Your task to perform on an android device: Look up the best rated bike on Walmart Image 0: 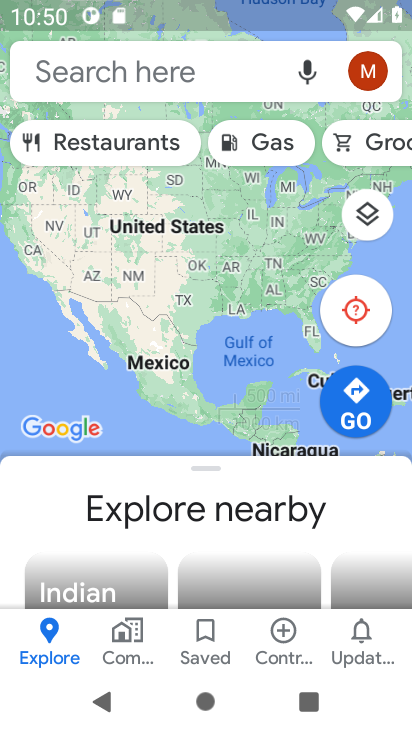
Step 0: press home button
Your task to perform on an android device: Look up the best rated bike on Walmart Image 1: 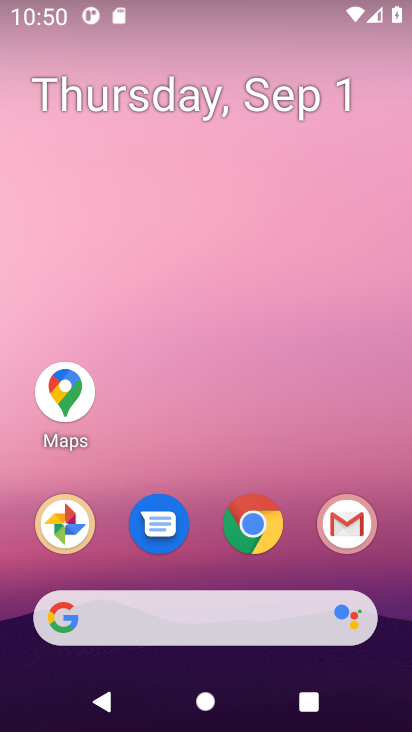
Step 1: click (246, 622)
Your task to perform on an android device: Look up the best rated bike on Walmart Image 2: 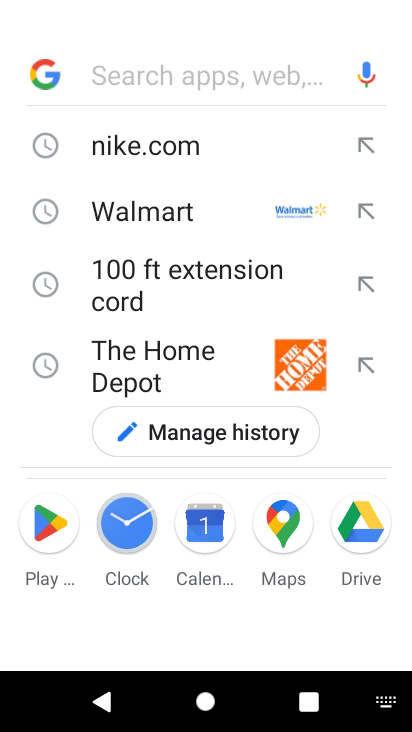
Step 2: type "walmart"
Your task to perform on an android device: Look up the best rated bike on Walmart Image 3: 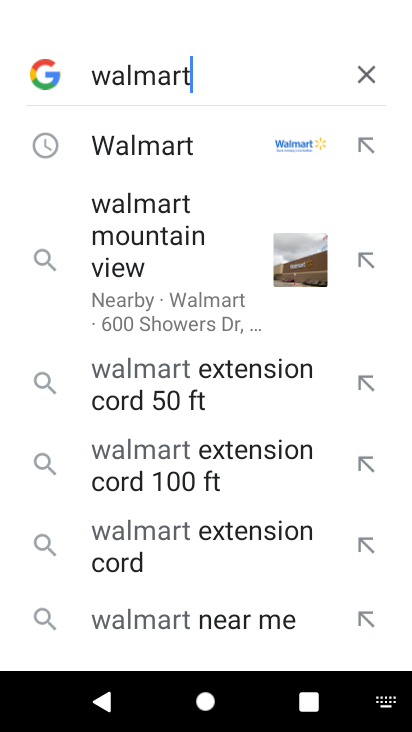
Step 3: press enter
Your task to perform on an android device: Look up the best rated bike on Walmart Image 4: 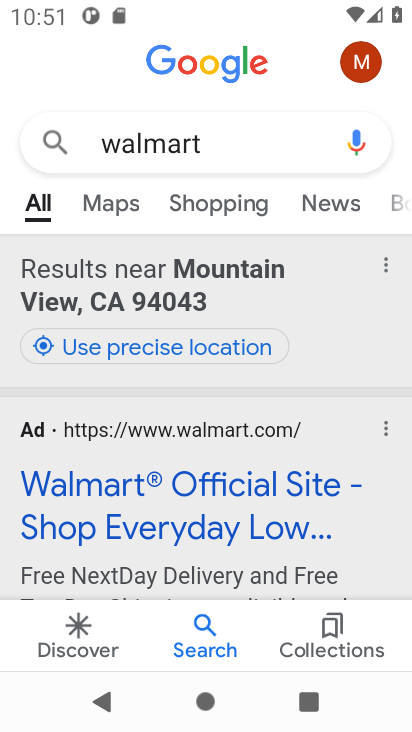
Step 4: click (251, 494)
Your task to perform on an android device: Look up the best rated bike on Walmart Image 5: 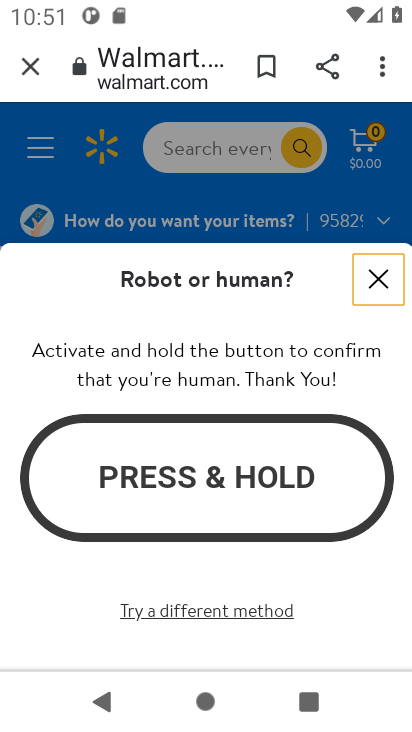
Step 5: click (379, 276)
Your task to perform on an android device: Look up the best rated bike on Walmart Image 6: 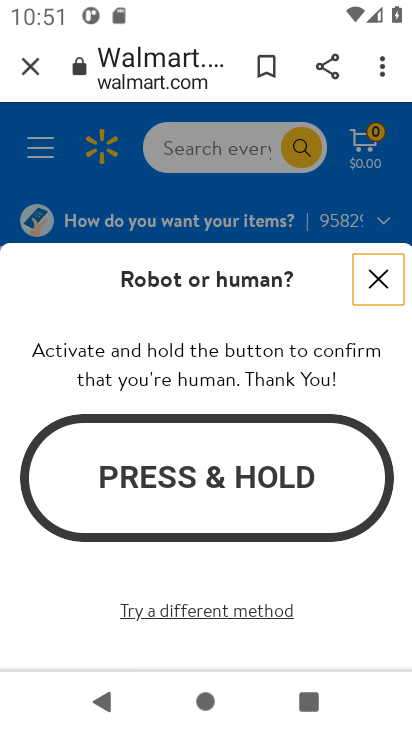
Step 6: click (368, 271)
Your task to perform on an android device: Look up the best rated bike on Walmart Image 7: 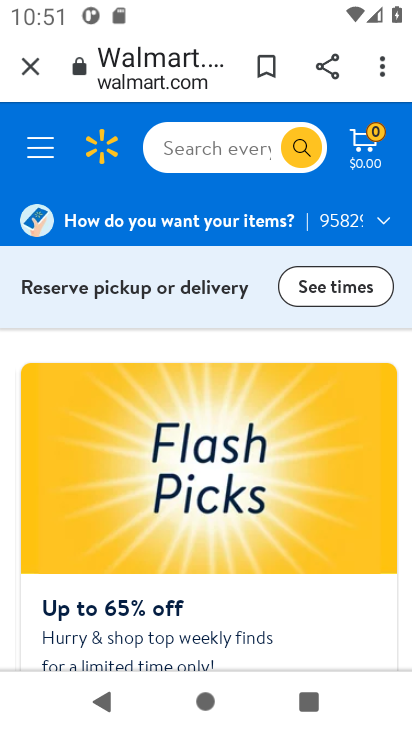
Step 7: click (181, 147)
Your task to perform on an android device: Look up the best rated bike on Walmart Image 8: 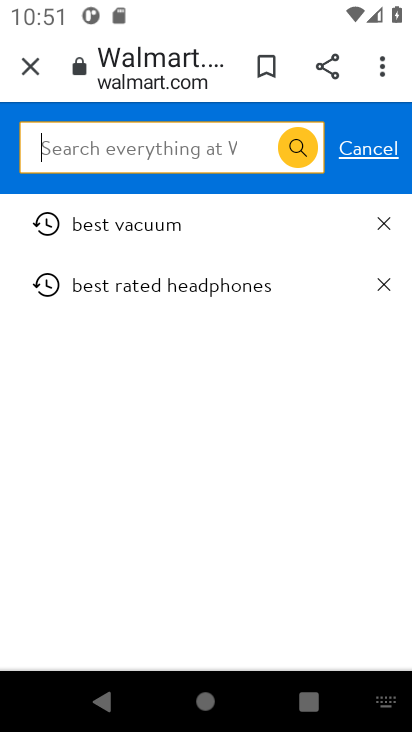
Step 8: press enter
Your task to perform on an android device: Look up the best rated bike on Walmart Image 9: 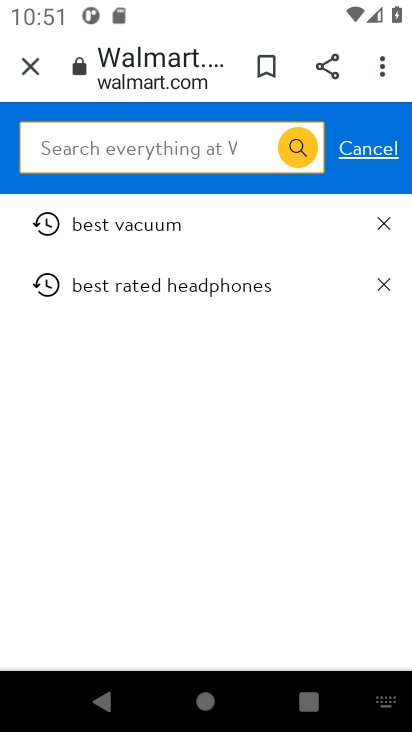
Step 9: type "best rated bike"
Your task to perform on an android device: Look up the best rated bike on Walmart Image 10: 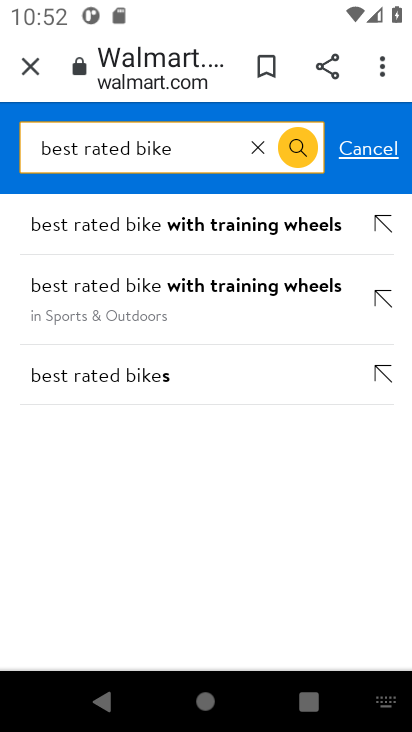
Step 10: click (184, 362)
Your task to perform on an android device: Look up the best rated bike on Walmart Image 11: 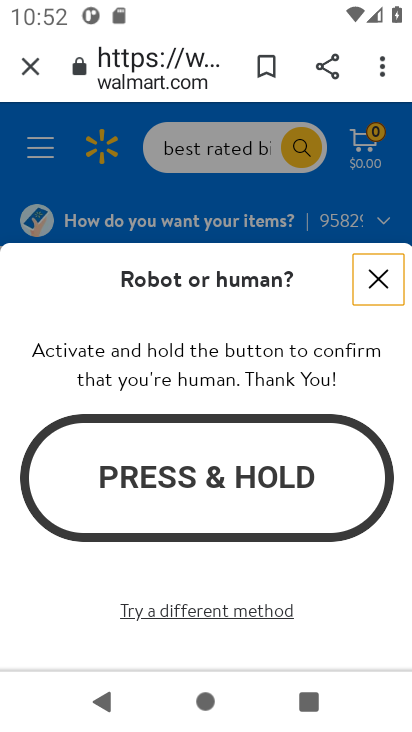
Step 11: click (361, 274)
Your task to perform on an android device: Look up the best rated bike on Walmart Image 12: 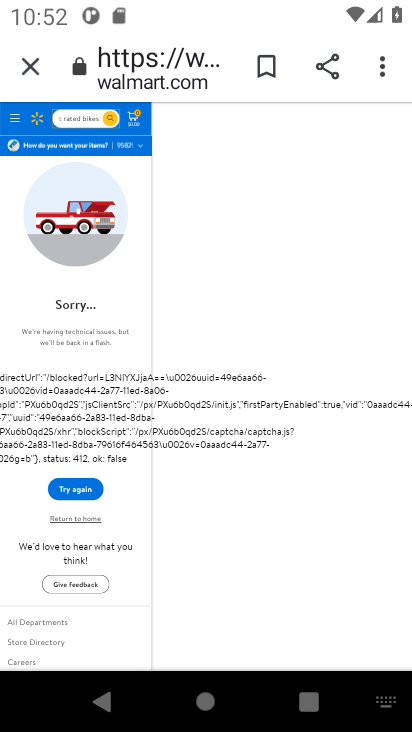
Step 12: task complete